Your task to perform on an android device: Go to wifi settings Image 0: 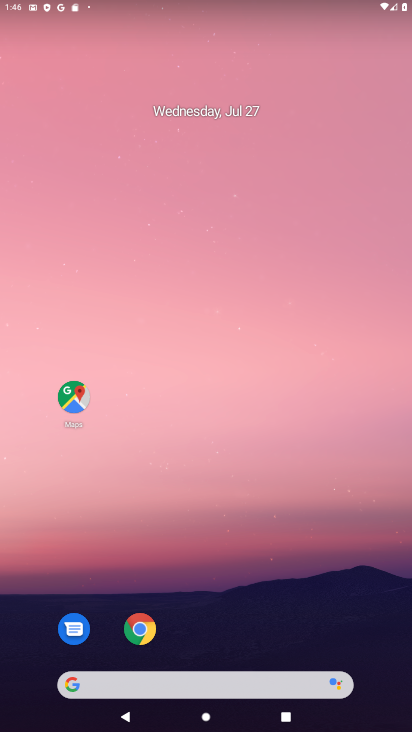
Step 0: drag from (332, 656) to (132, 207)
Your task to perform on an android device: Go to wifi settings Image 1: 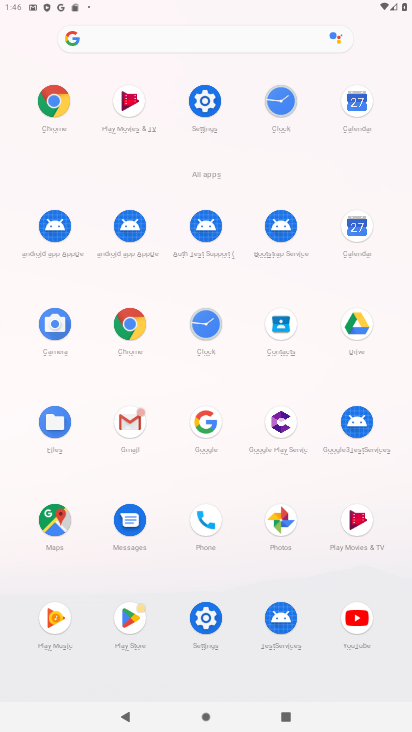
Step 1: click (217, 127)
Your task to perform on an android device: Go to wifi settings Image 2: 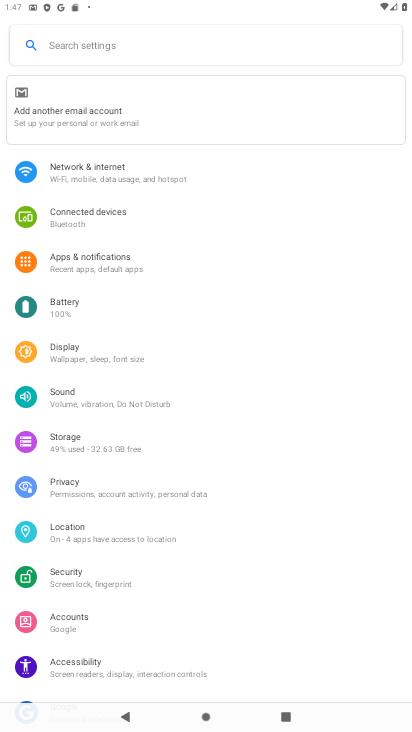
Step 2: click (217, 126)
Your task to perform on an android device: Go to wifi settings Image 3: 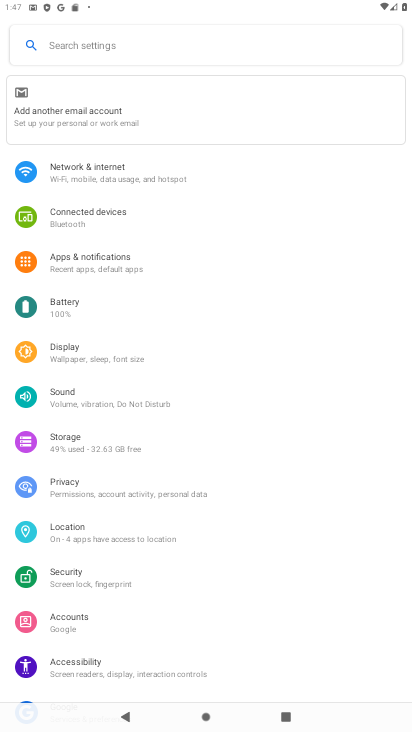
Step 3: click (214, 174)
Your task to perform on an android device: Go to wifi settings Image 4: 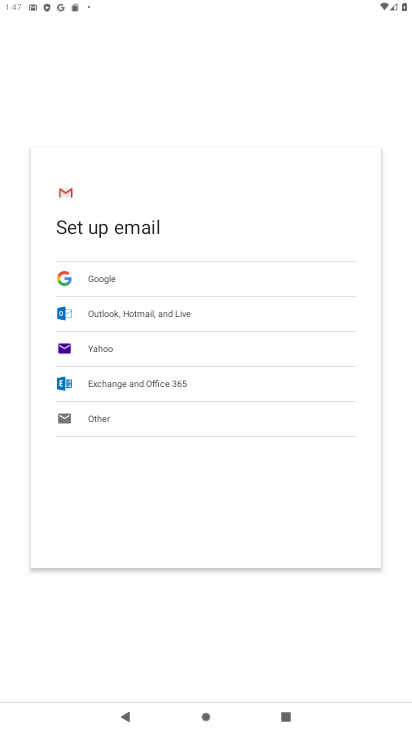
Step 4: task complete